Your task to perform on an android device: Clear all items from cart on amazon.com. Add bose soundsport free to the cart on amazon.com, then select checkout. Image 0: 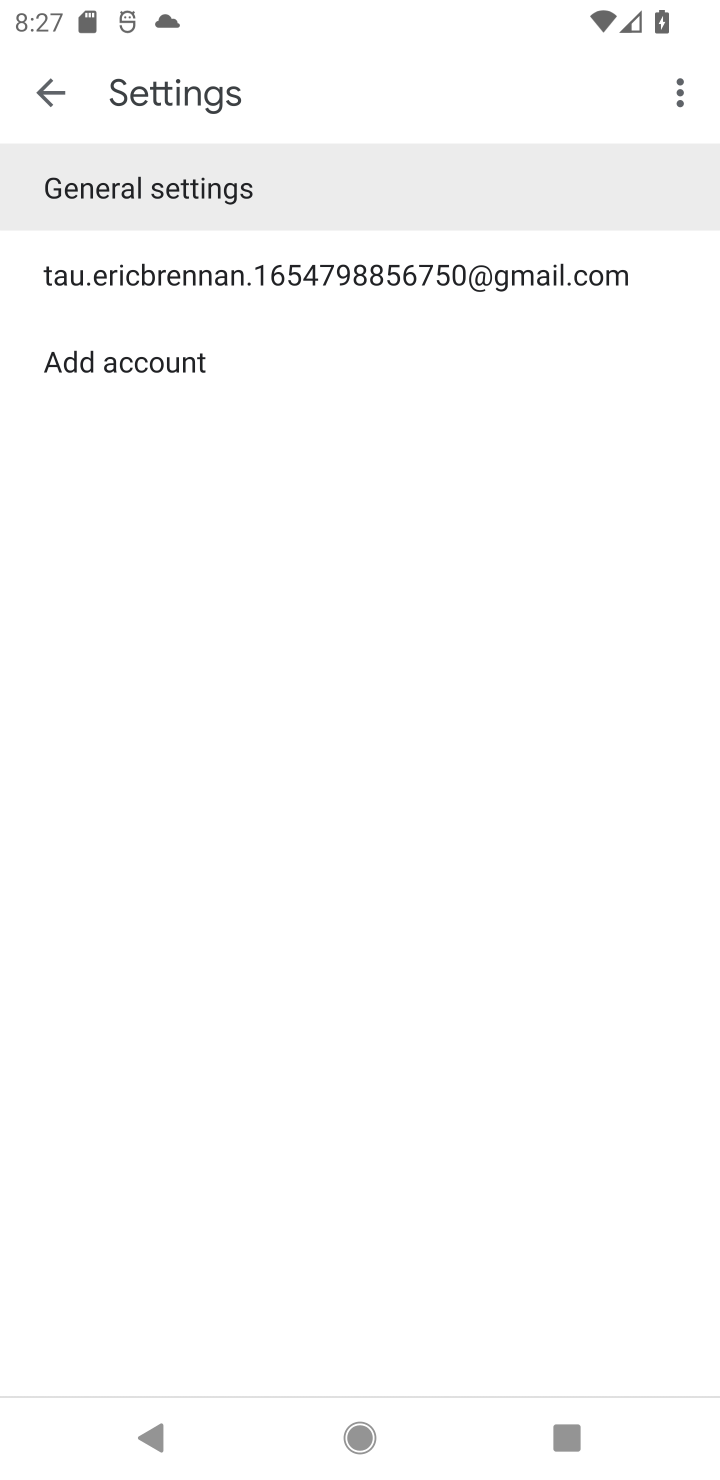
Step 0: press home button
Your task to perform on an android device: Clear all items from cart on amazon.com. Add bose soundsport free to the cart on amazon.com, then select checkout. Image 1: 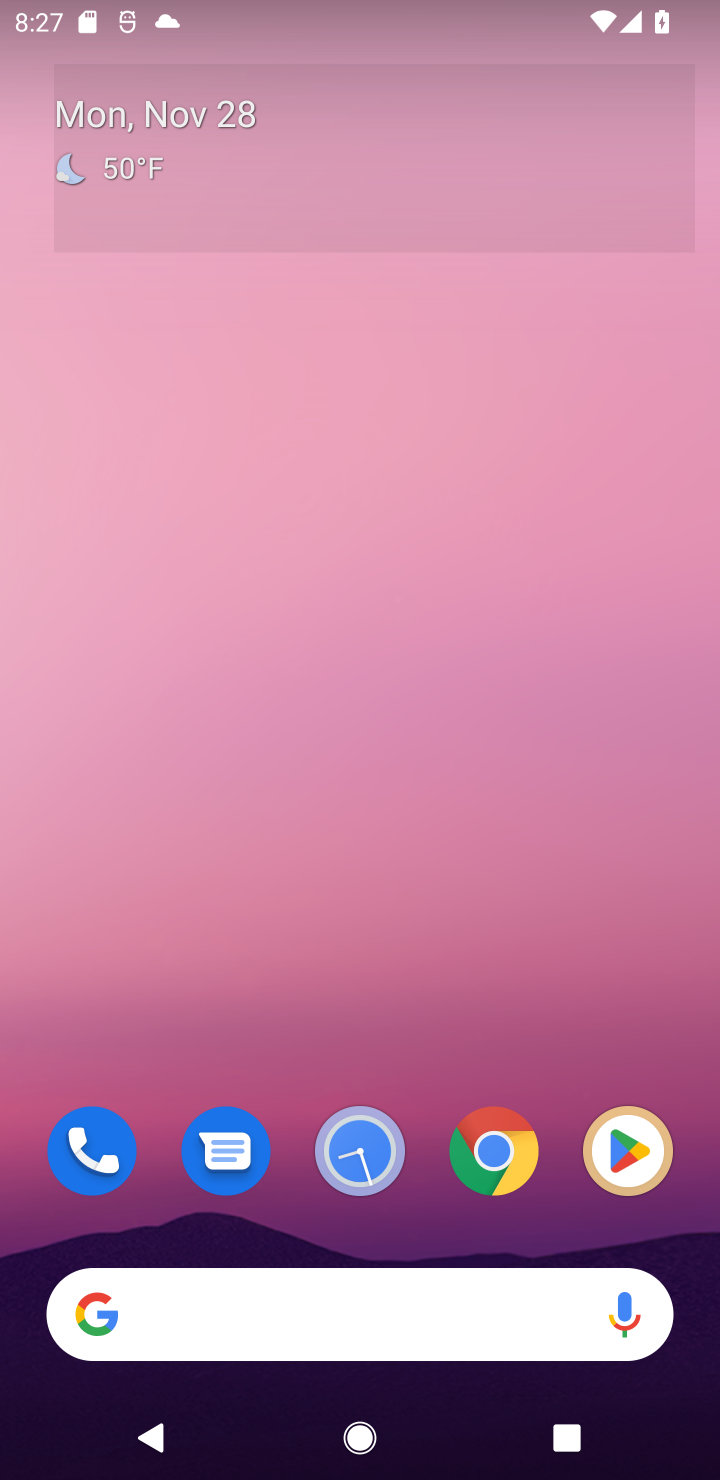
Step 1: click (269, 1300)
Your task to perform on an android device: Clear all items from cart on amazon.com. Add bose soundsport free to the cart on amazon.com, then select checkout. Image 2: 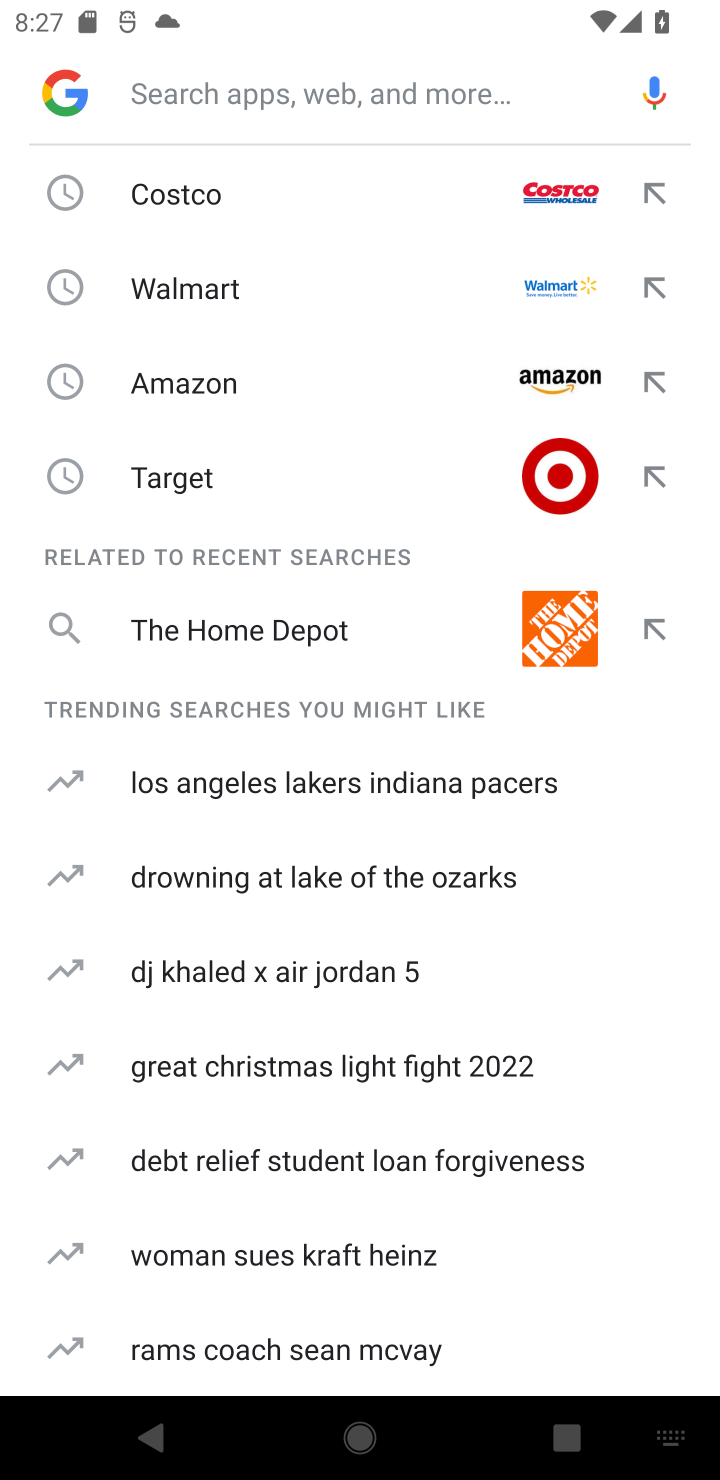
Step 2: type "amazon"
Your task to perform on an android device: Clear all items from cart on amazon.com. Add bose soundsport free to the cart on amazon.com, then select checkout. Image 3: 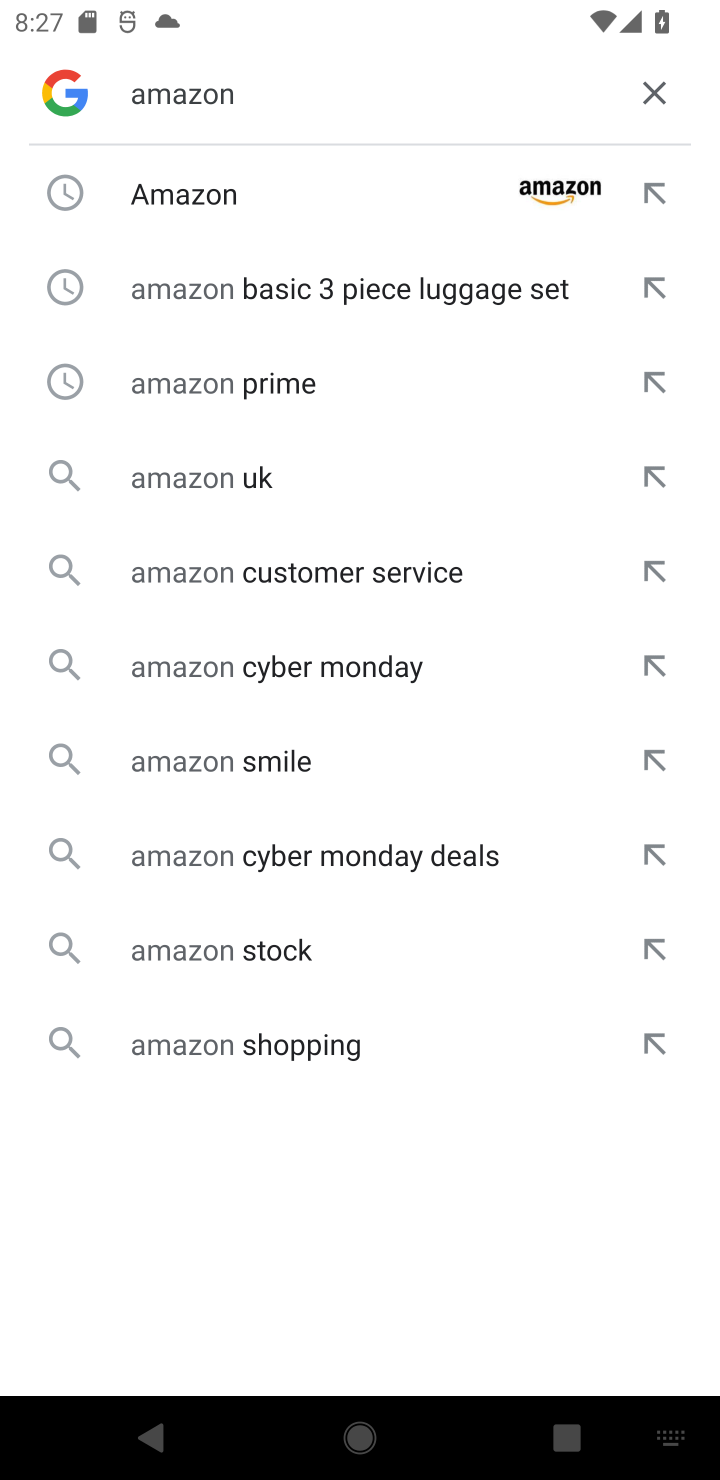
Step 3: click (183, 204)
Your task to perform on an android device: Clear all items from cart on amazon.com. Add bose soundsport free to the cart on amazon.com, then select checkout. Image 4: 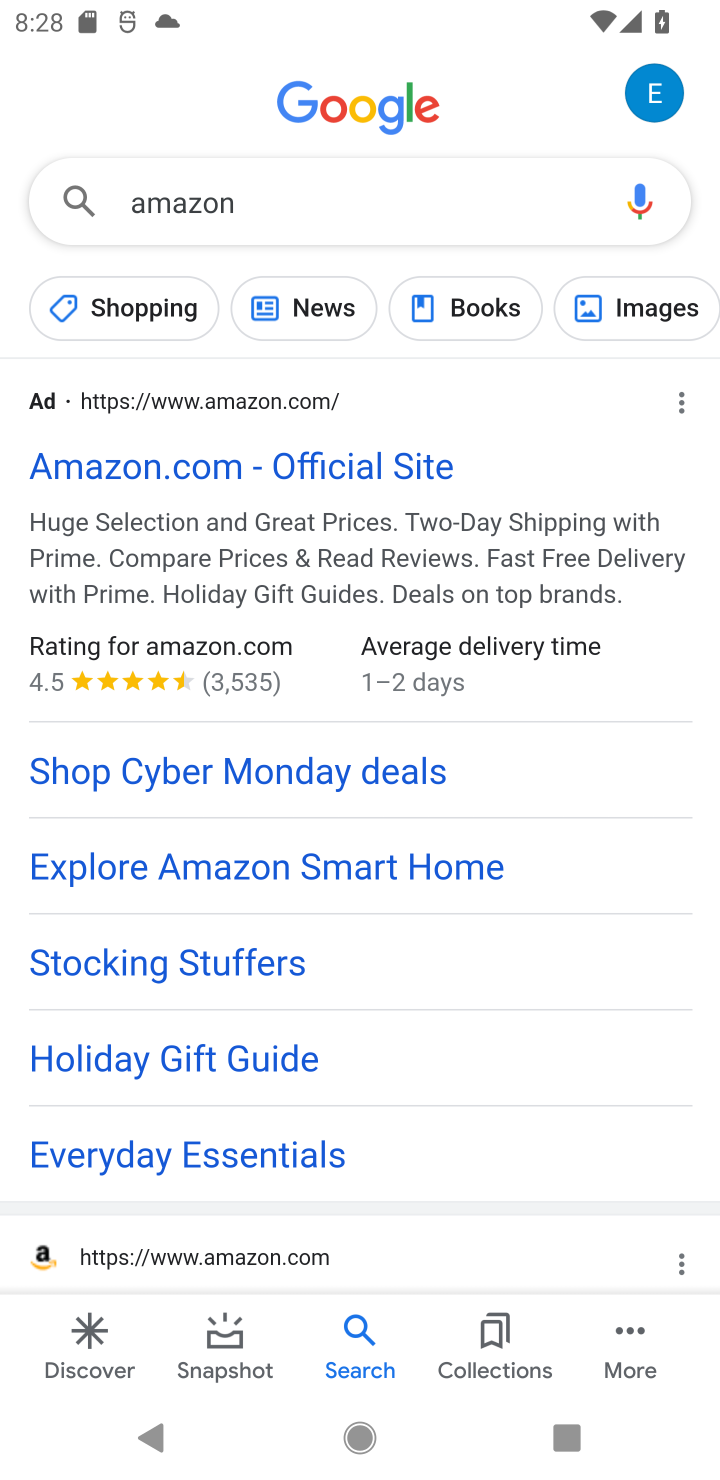
Step 4: click (151, 502)
Your task to perform on an android device: Clear all items from cart on amazon.com. Add bose soundsport free to the cart on amazon.com, then select checkout. Image 5: 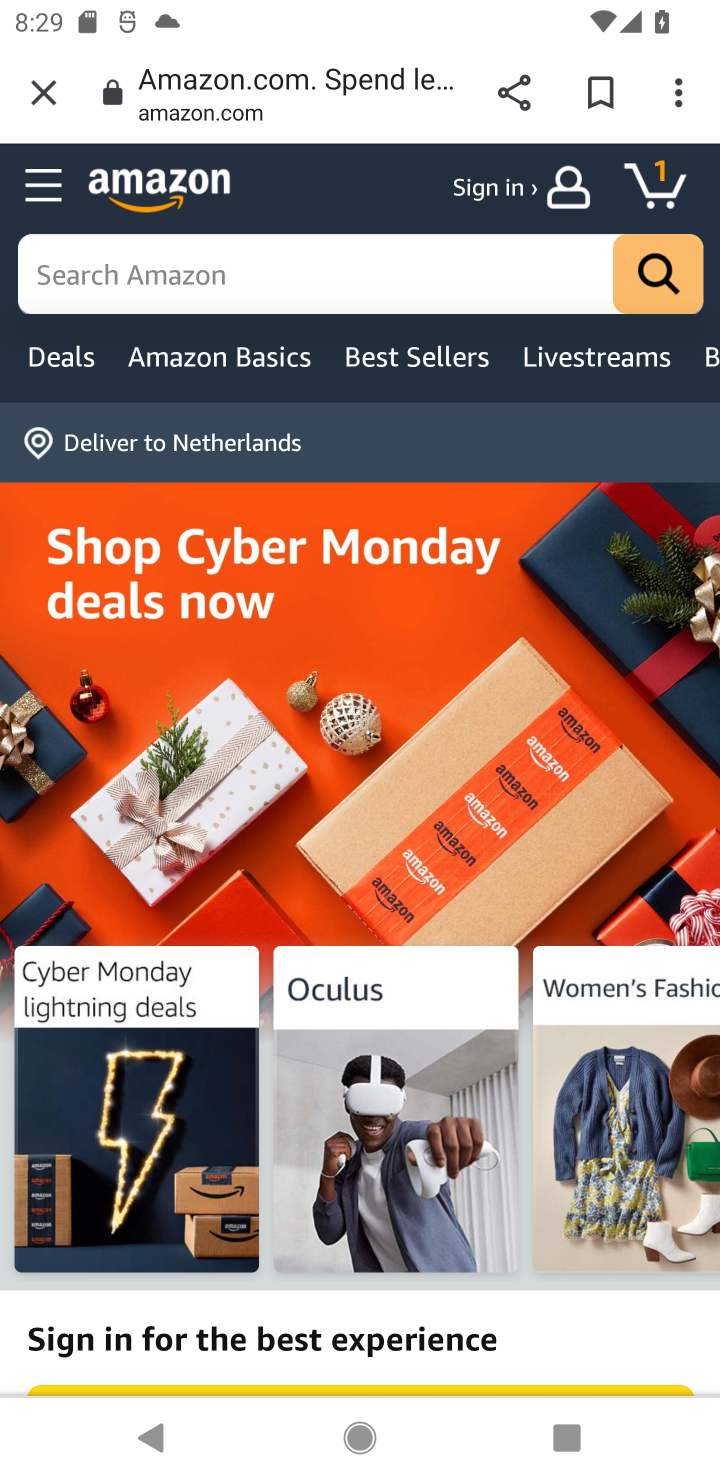
Step 5: task complete